Your task to perform on an android device: Go to calendar. Show me events next week Image 0: 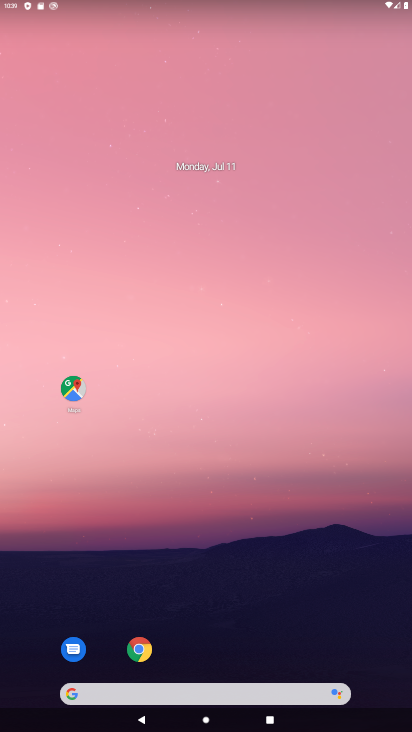
Step 0: drag from (354, 413) to (320, 41)
Your task to perform on an android device: Go to calendar. Show me events next week Image 1: 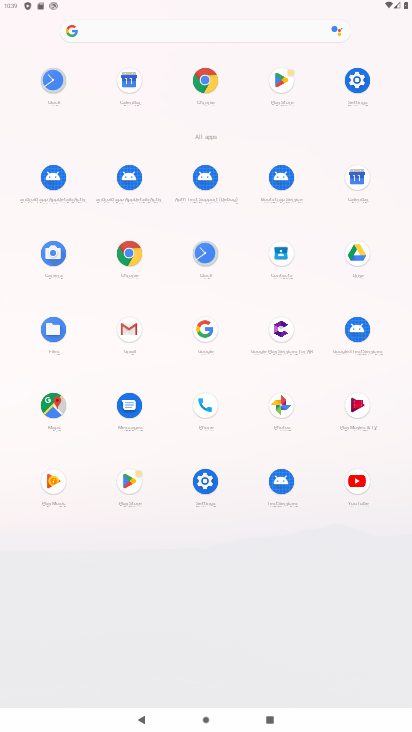
Step 1: click (362, 172)
Your task to perform on an android device: Go to calendar. Show me events next week Image 2: 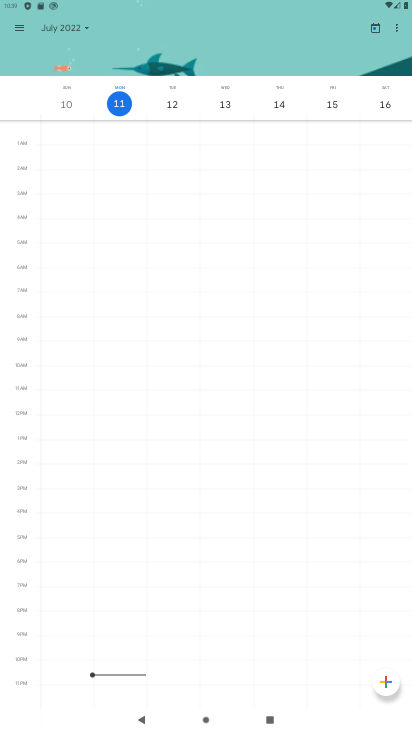
Step 2: click (54, 27)
Your task to perform on an android device: Go to calendar. Show me events next week Image 3: 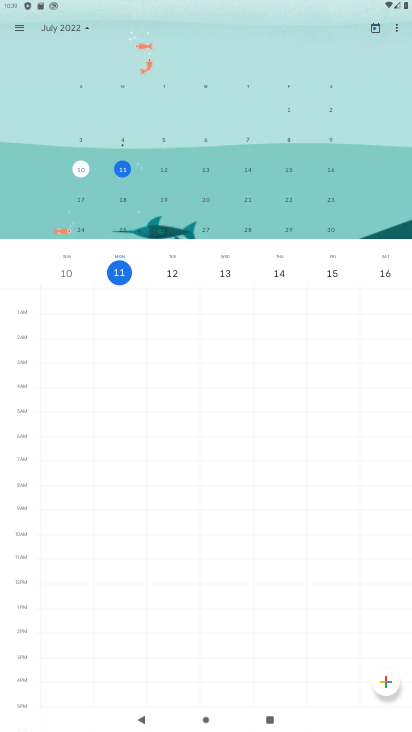
Step 3: click (129, 201)
Your task to perform on an android device: Go to calendar. Show me events next week Image 4: 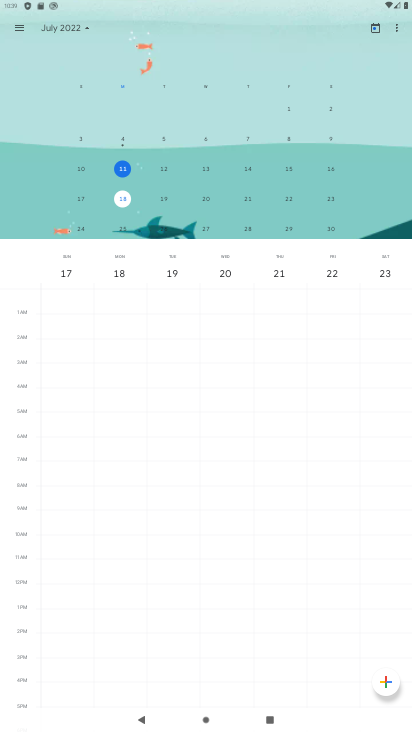
Step 4: task complete